Your task to perform on an android device: toggle data saver in the chrome app Image 0: 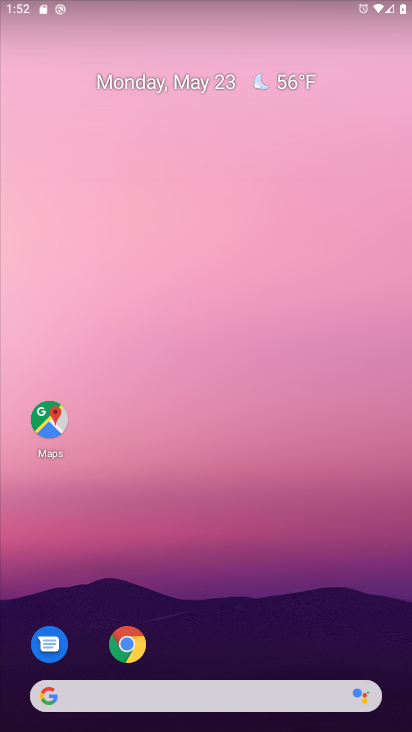
Step 0: drag from (222, 526) to (378, 8)
Your task to perform on an android device: toggle data saver in the chrome app Image 1: 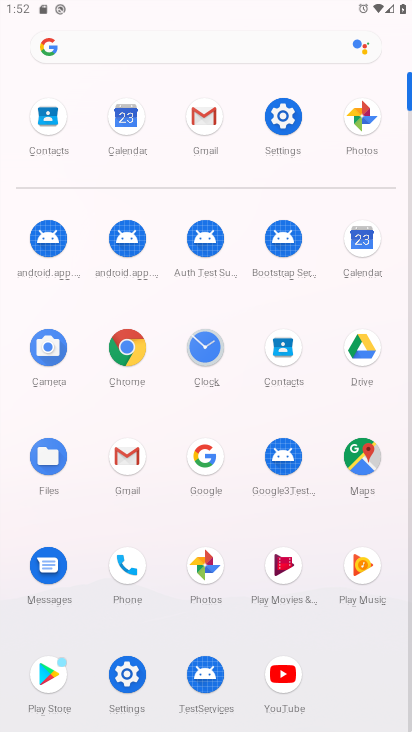
Step 1: drag from (216, 605) to (166, 72)
Your task to perform on an android device: toggle data saver in the chrome app Image 2: 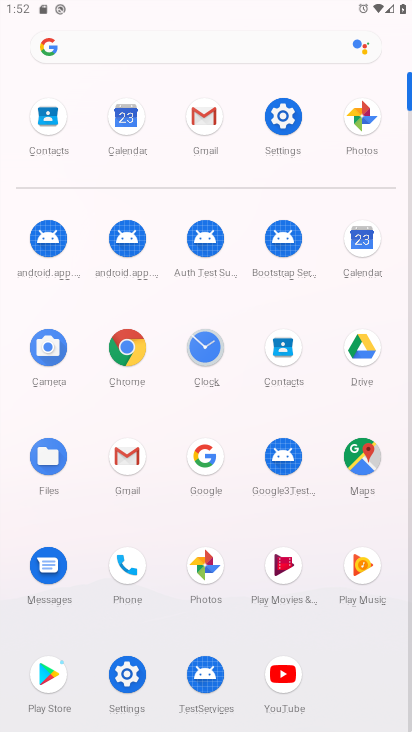
Step 2: click (127, 660)
Your task to perform on an android device: toggle data saver in the chrome app Image 3: 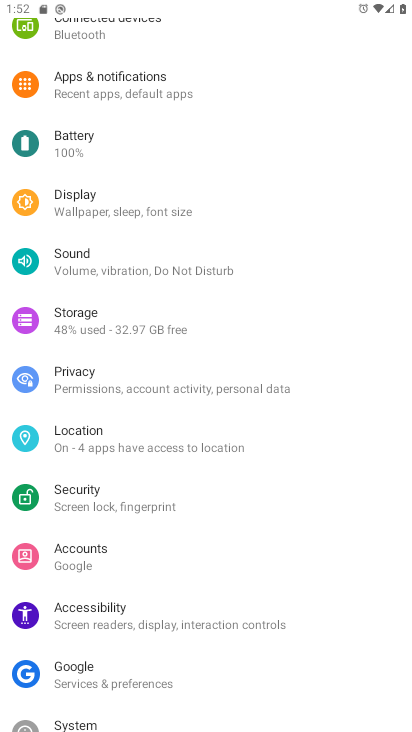
Step 3: press back button
Your task to perform on an android device: toggle data saver in the chrome app Image 4: 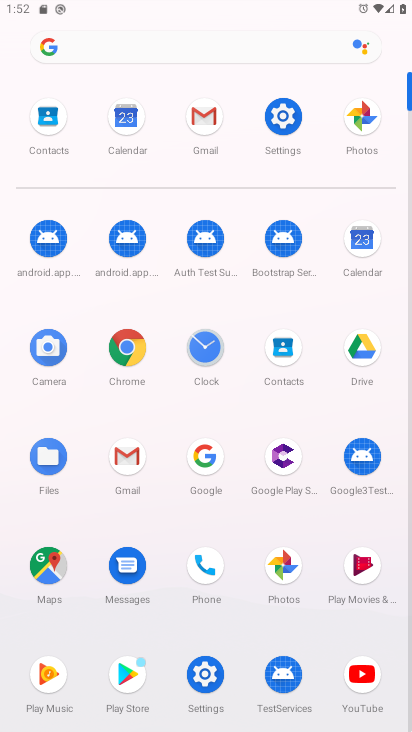
Step 4: click (130, 353)
Your task to perform on an android device: toggle data saver in the chrome app Image 5: 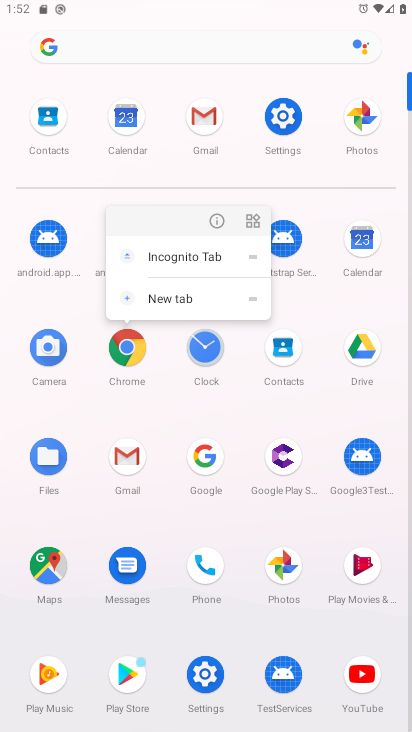
Step 5: click (130, 353)
Your task to perform on an android device: toggle data saver in the chrome app Image 6: 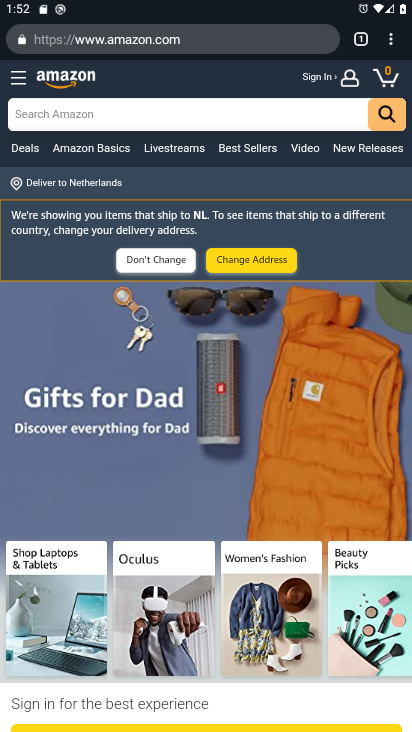
Step 6: click (393, 42)
Your task to perform on an android device: toggle data saver in the chrome app Image 7: 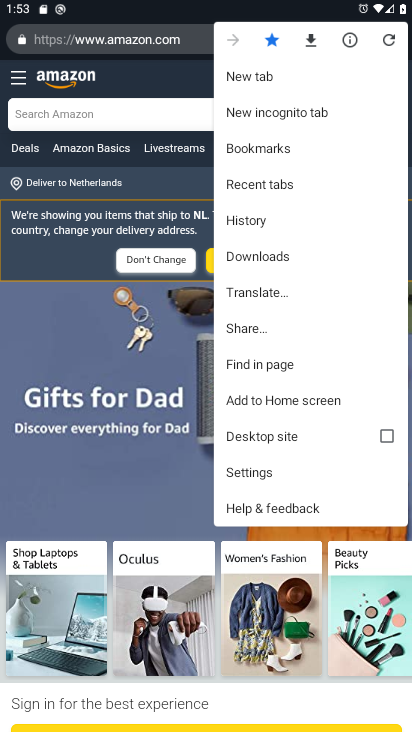
Step 7: click (258, 476)
Your task to perform on an android device: toggle data saver in the chrome app Image 8: 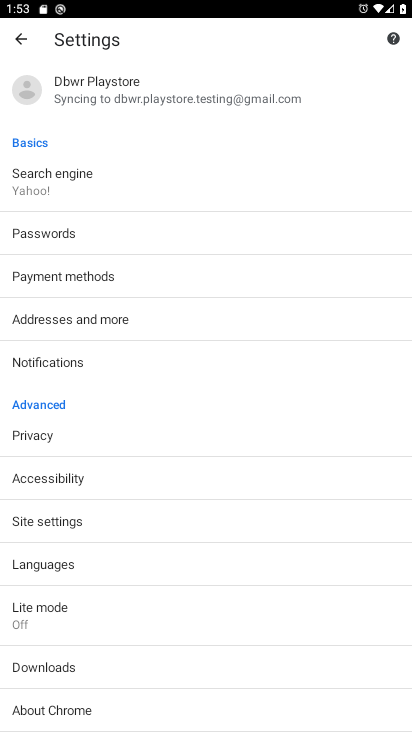
Step 8: click (87, 629)
Your task to perform on an android device: toggle data saver in the chrome app Image 9: 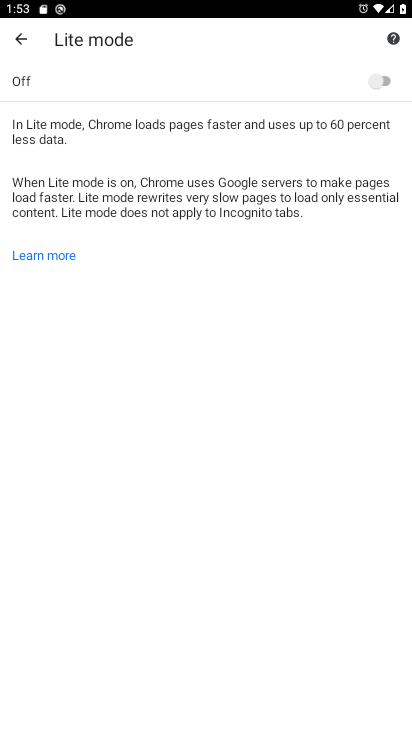
Step 9: click (385, 73)
Your task to perform on an android device: toggle data saver in the chrome app Image 10: 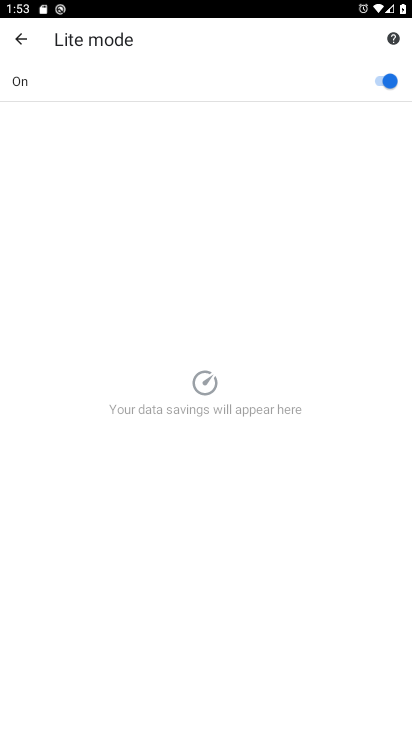
Step 10: task complete